Your task to perform on an android device: change the clock display to digital Image 0: 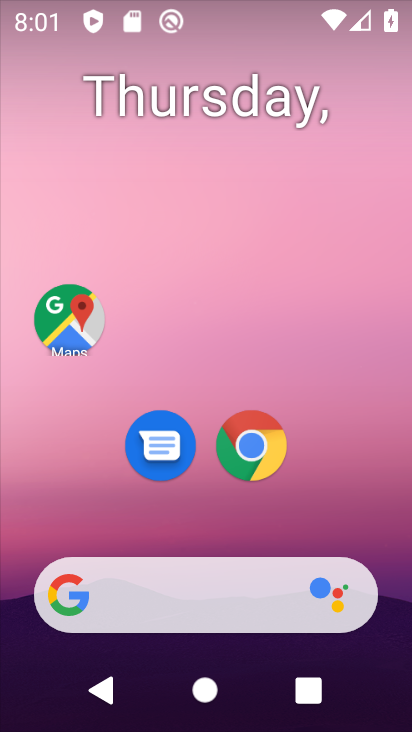
Step 0: drag from (397, 541) to (388, 26)
Your task to perform on an android device: change the clock display to digital Image 1: 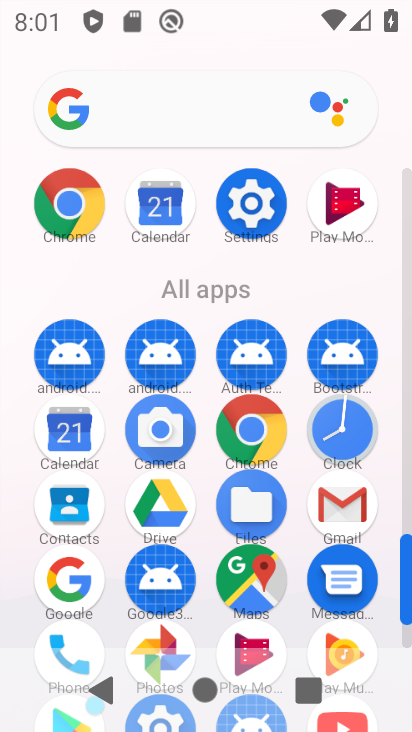
Step 1: click (346, 430)
Your task to perform on an android device: change the clock display to digital Image 2: 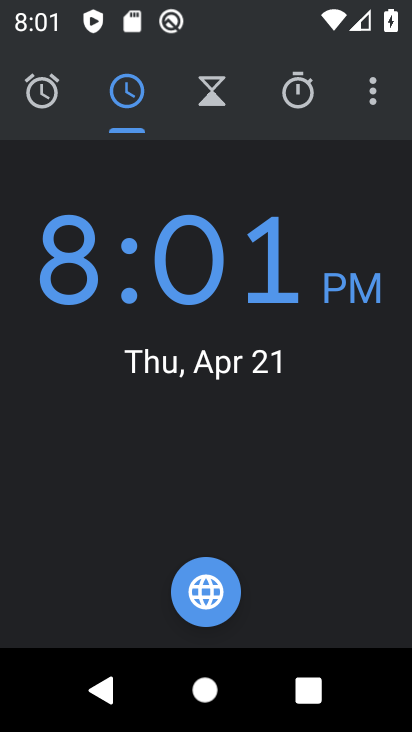
Step 2: click (375, 99)
Your task to perform on an android device: change the clock display to digital Image 3: 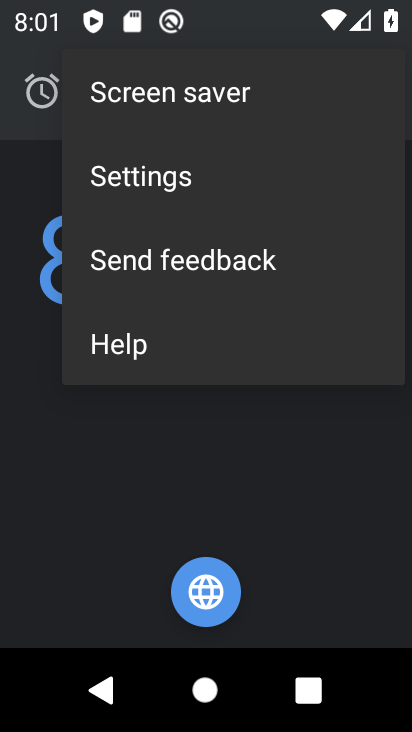
Step 3: click (120, 172)
Your task to perform on an android device: change the clock display to digital Image 4: 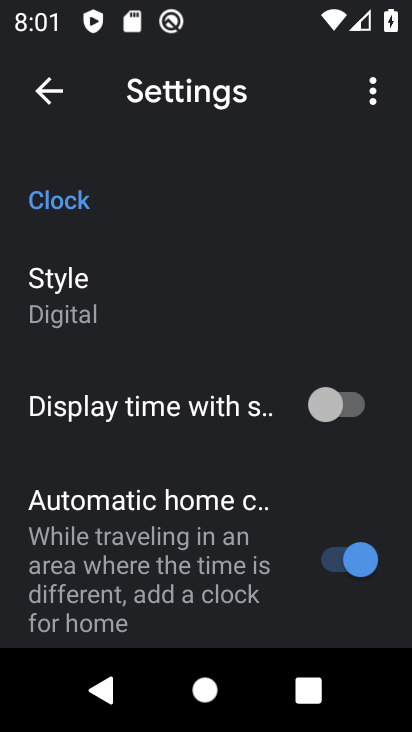
Step 4: task complete